Your task to perform on an android device: Show me popular games on the Play Store Image 0: 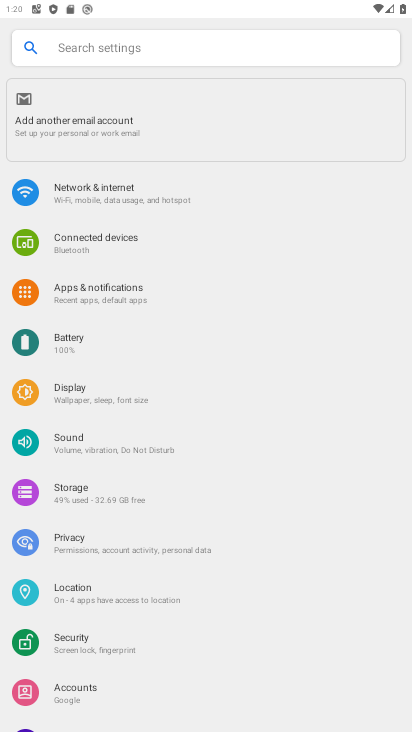
Step 0: press home button
Your task to perform on an android device: Show me popular games on the Play Store Image 1: 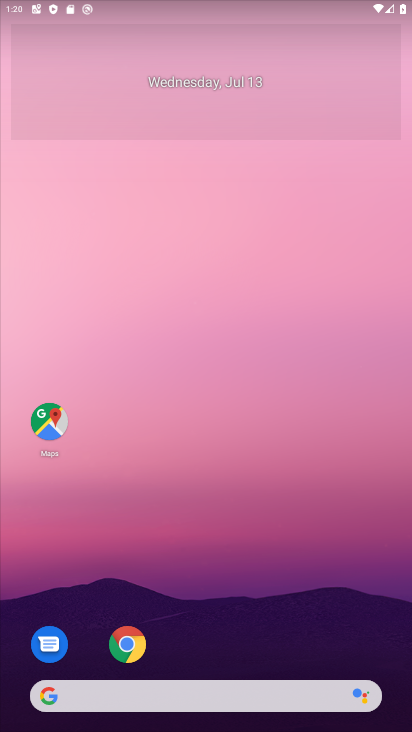
Step 1: drag from (311, 600) to (294, 103)
Your task to perform on an android device: Show me popular games on the Play Store Image 2: 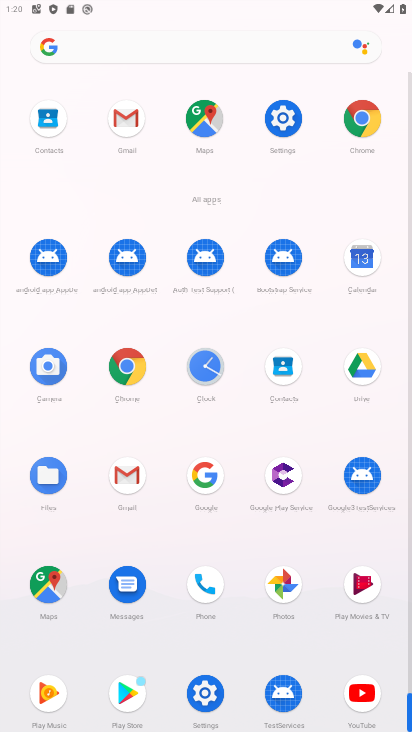
Step 2: click (125, 688)
Your task to perform on an android device: Show me popular games on the Play Store Image 3: 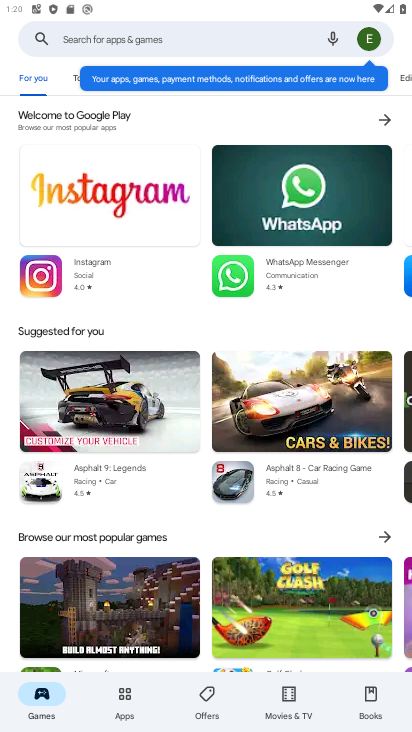
Step 3: click (35, 704)
Your task to perform on an android device: Show me popular games on the Play Store Image 4: 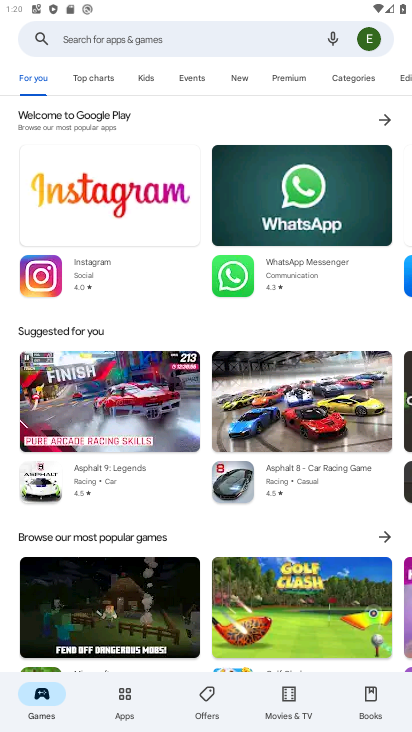
Step 4: click (132, 538)
Your task to perform on an android device: Show me popular games on the Play Store Image 5: 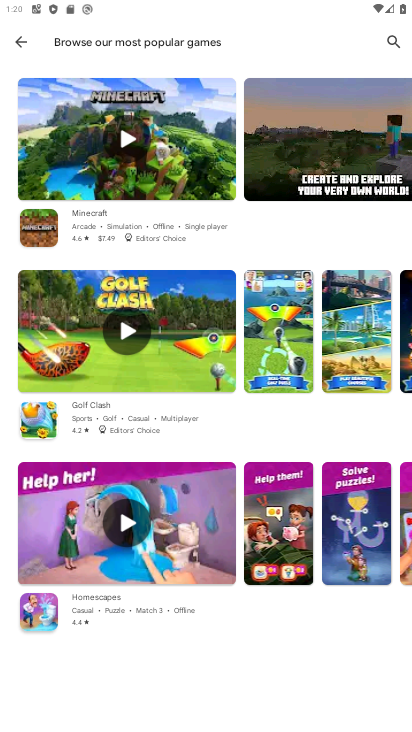
Step 5: task complete